Your task to perform on an android device: see tabs open on other devices in the chrome app Image 0: 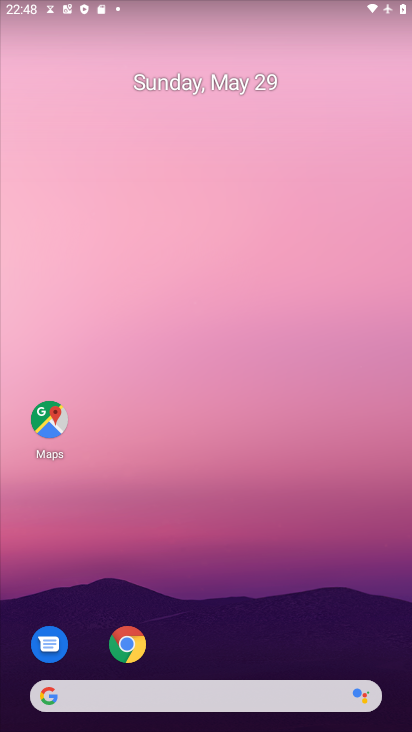
Step 0: click (132, 646)
Your task to perform on an android device: see tabs open on other devices in the chrome app Image 1: 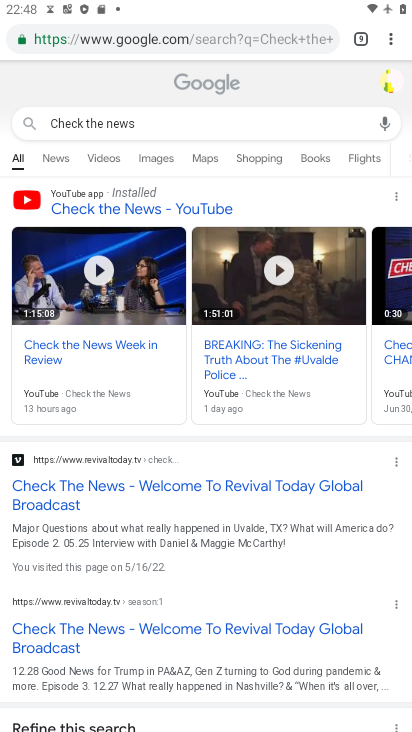
Step 1: click (387, 40)
Your task to perform on an android device: see tabs open on other devices in the chrome app Image 2: 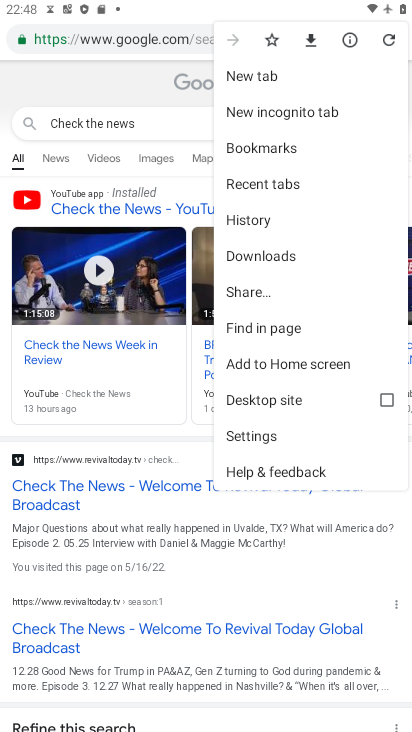
Step 2: click (258, 223)
Your task to perform on an android device: see tabs open on other devices in the chrome app Image 3: 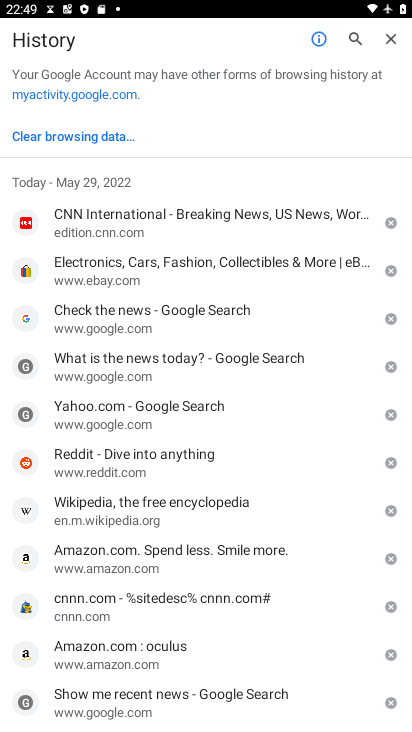
Step 3: task complete